Your task to perform on an android device: open wifi settings Image 0: 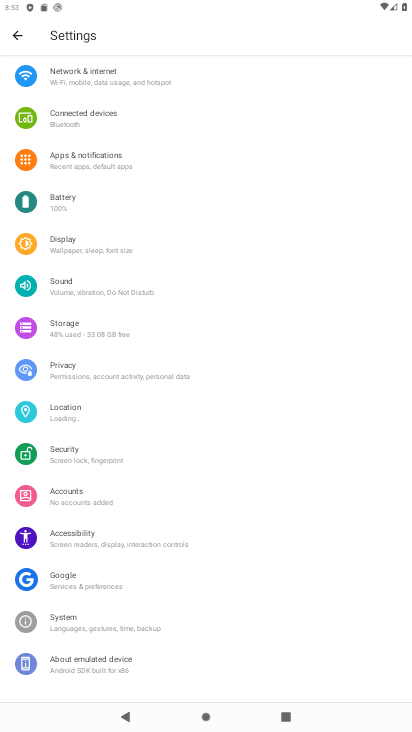
Step 0: press home button
Your task to perform on an android device: open wifi settings Image 1: 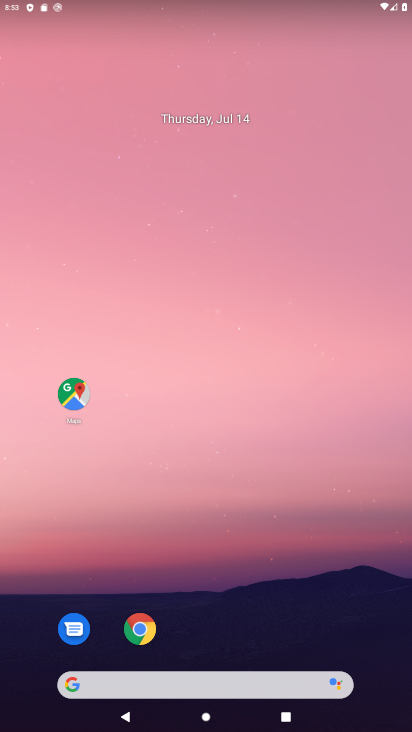
Step 1: drag from (237, 91) to (237, 17)
Your task to perform on an android device: open wifi settings Image 2: 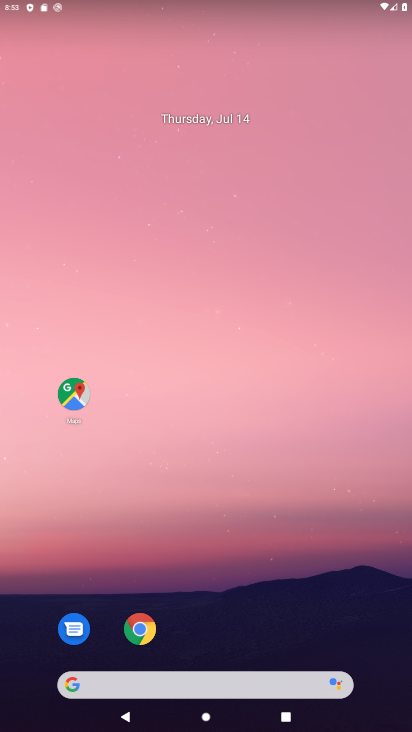
Step 2: drag from (225, 671) to (234, 35)
Your task to perform on an android device: open wifi settings Image 3: 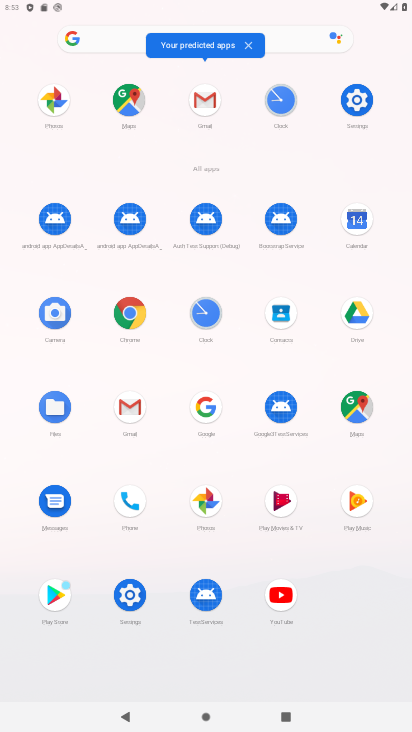
Step 3: click (349, 91)
Your task to perform on an android device: open wifi settings Image 4: 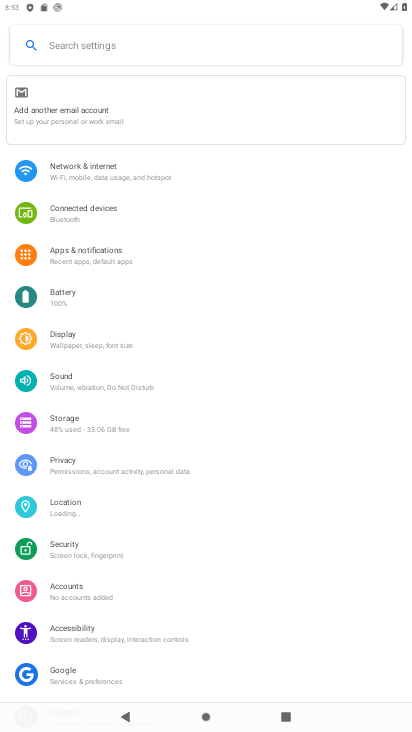
Step 4: click (99, 177)
Your task to perform on an android device: open wifi settings Image 5: 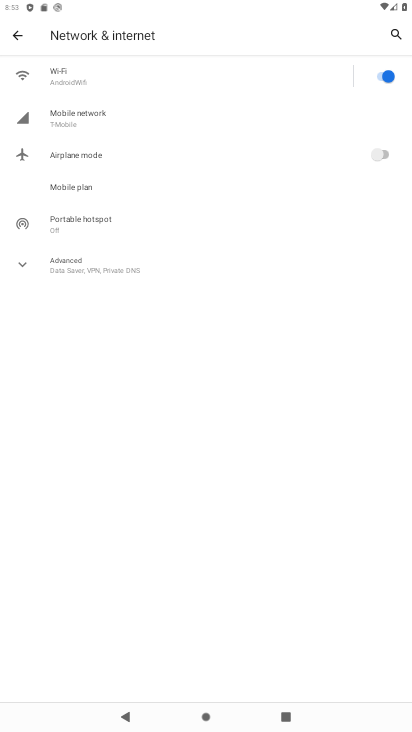
Step 5: click (153, 78)
Your task to perform on an android device: open wifi settings Image 6: 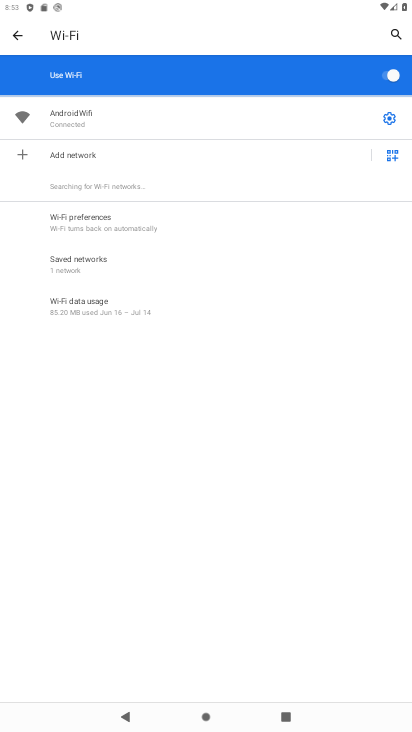
Step 6: task complete